Your task to perform on an android device: Go to Reddit.com Image 0: 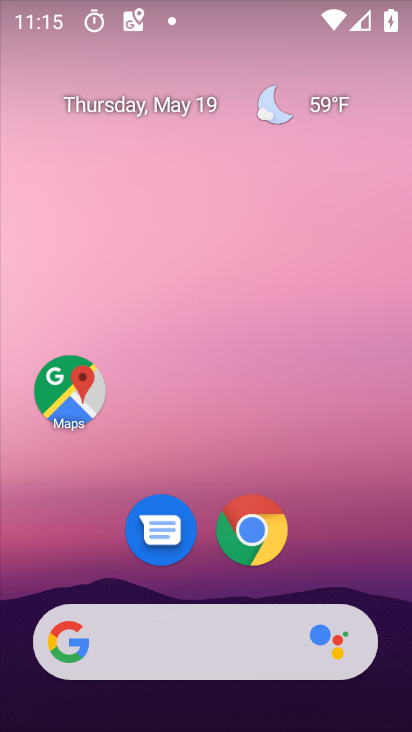
Step 0: drag from (346, 557) to (347, 143)
Your task to perform on an android device: Go to Reddit.com Image 1: 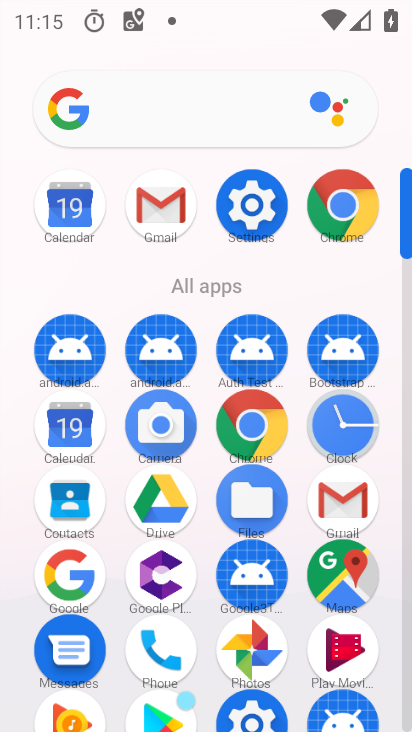
Step 1: click (259, 416)
Your task to perform on an android device: Go to Reddit.com Image 2: 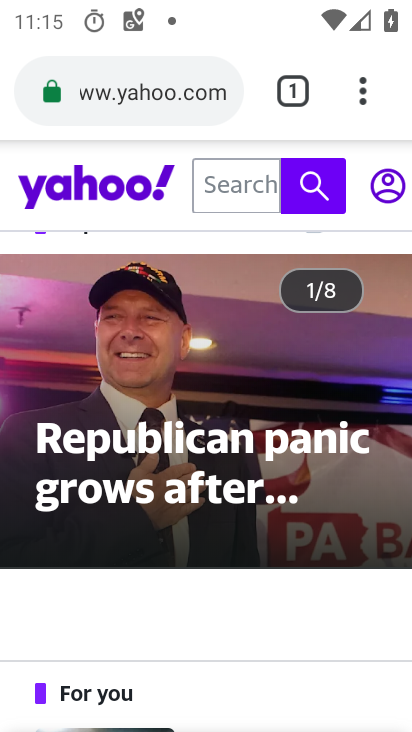
Step 2: click (205, 86)
Your task to perform on an android device: Go to Reddit.com Image 3: 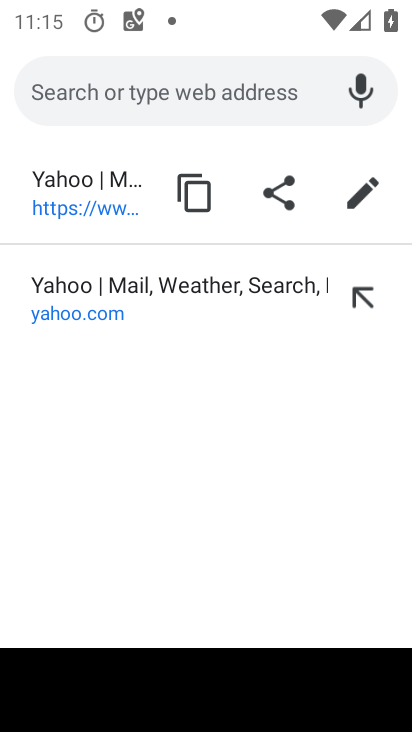
Step 3: type "reddit.com"
Your task to perform on an android device: Go to Reddit.com Image 4: 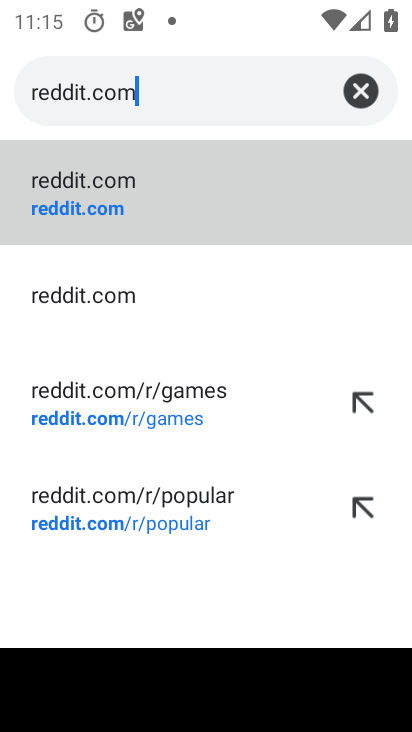
Step 4: click (132, 170)
Your task to perform on an android device: Go to Reddit.com Image 5: 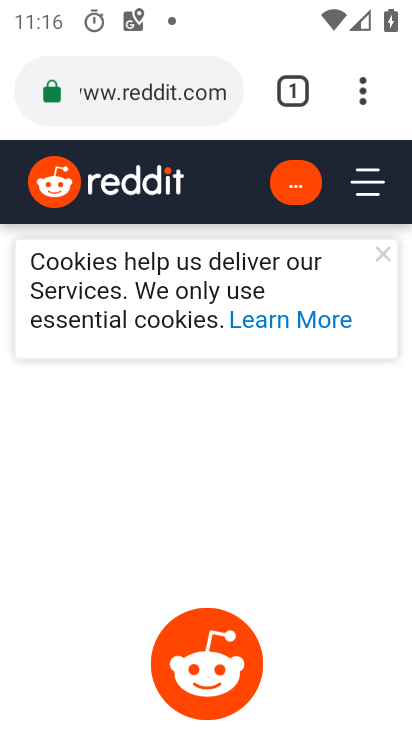
Step 5: task complete